Your task to perform on an android device: Open Android settings Image 0: 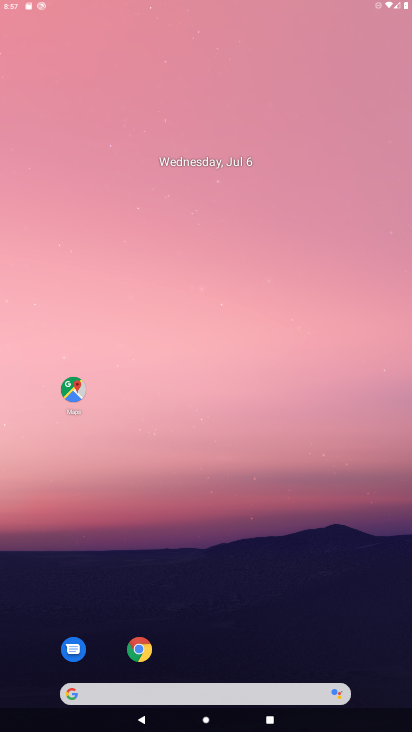
Step 0: drag from (327, 653) to (250, 108)
Your task to perform on an android device: Open Android settings Image 1: 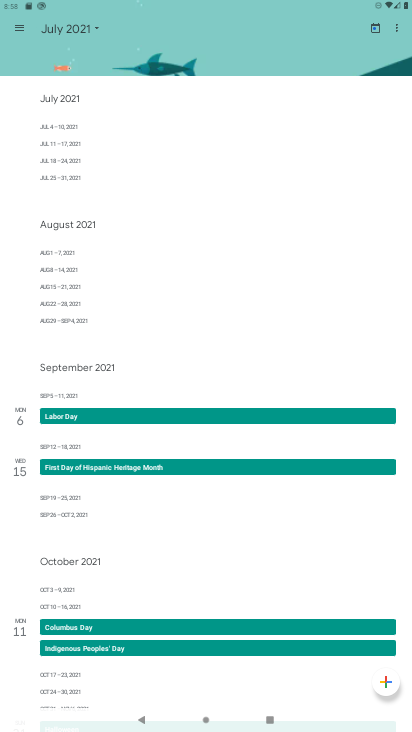
Step 1: press back button
Your task to perform on an android device: Open Android settings Image 2: 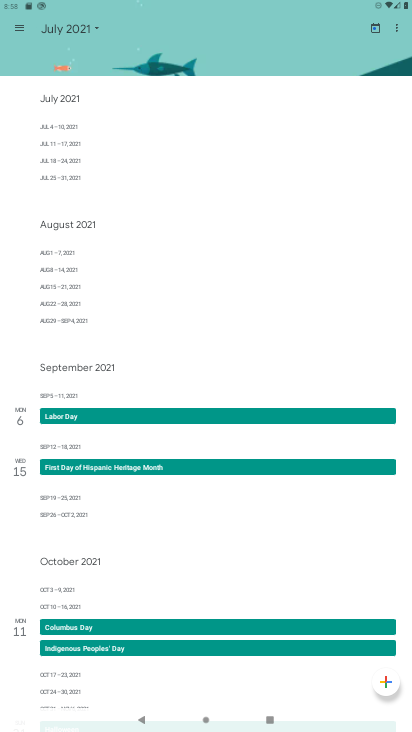
Step 2: press back button
Your task to perform on an android device: Open Android settings Image 3: 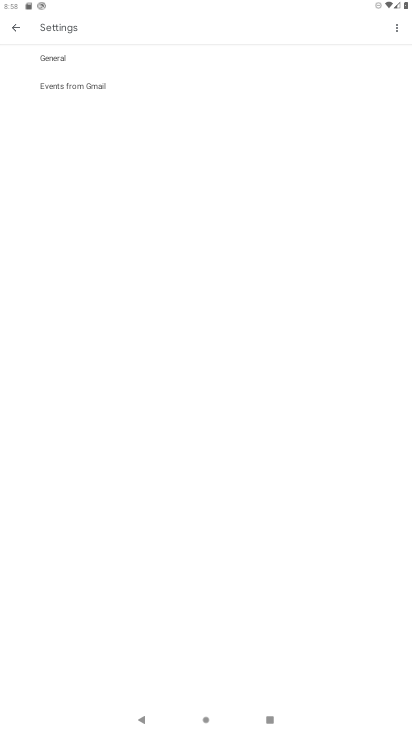
Step 3: press back button
Your task to perform on an android device: Open Android settings Image 4: 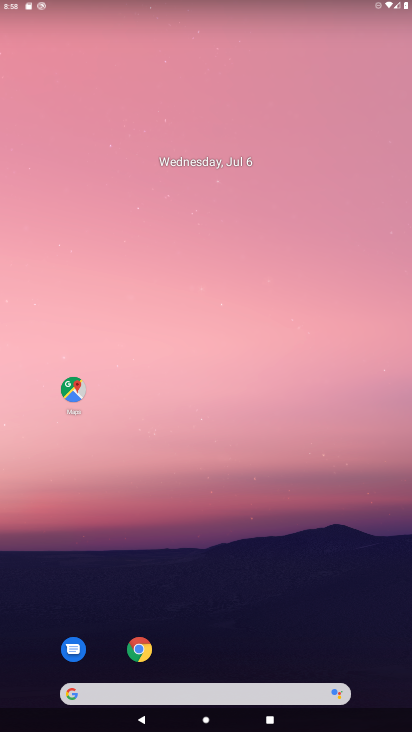
Step 4: drag from (188, 560) to (128, 108)
Your task to perform on an android device: Open Android settings Image 5: 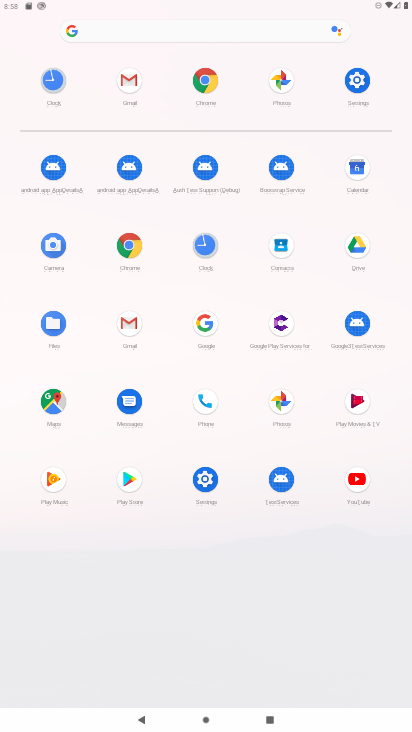
Step 5: click (370, 86)
Your task to perform on an android device: Open Android settings Image 6: 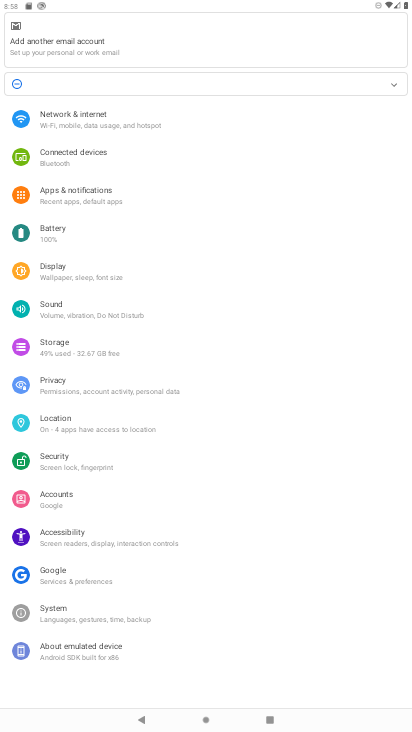
Step 6: click (82, 652)
Your task to perform on an android device: Open Android settings Image 7: 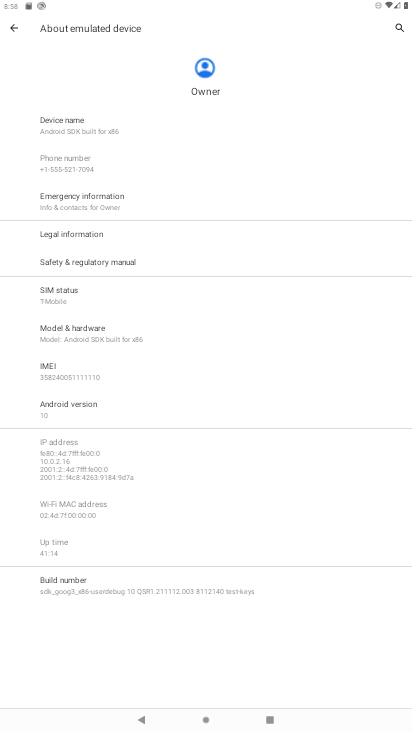
Step 7: click (77, 408)
Your task to perform on an android device: Open Android settings Image 8: 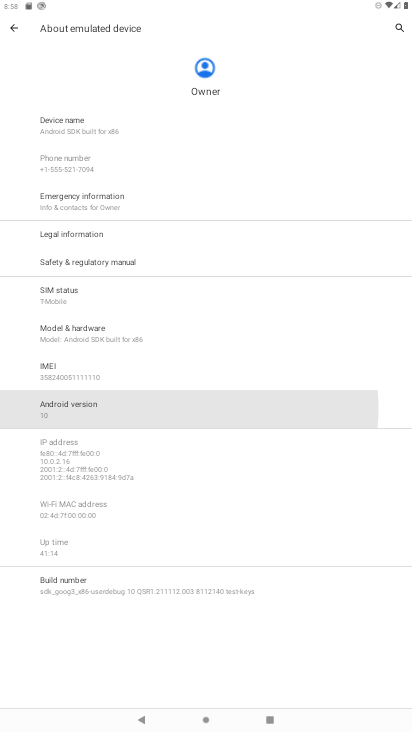
Step 8: click (77, 408)
Your task to perform on an android device: Open Android settings Image 9: 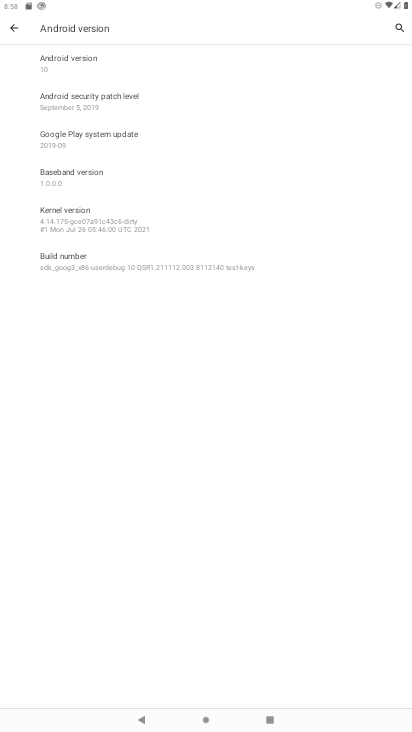
Step 9: click (77, 408)
Your task to perform on an android device: Open Android settings Image 10: 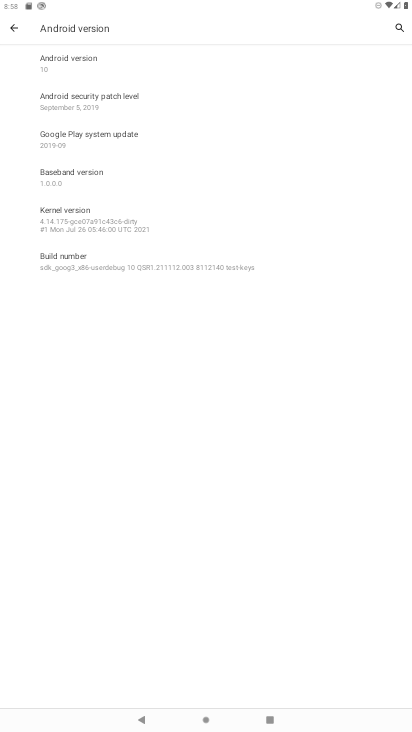
Step 10: task complete